Your task to perform on an android device: Open Chrome and go to settings Image 0: 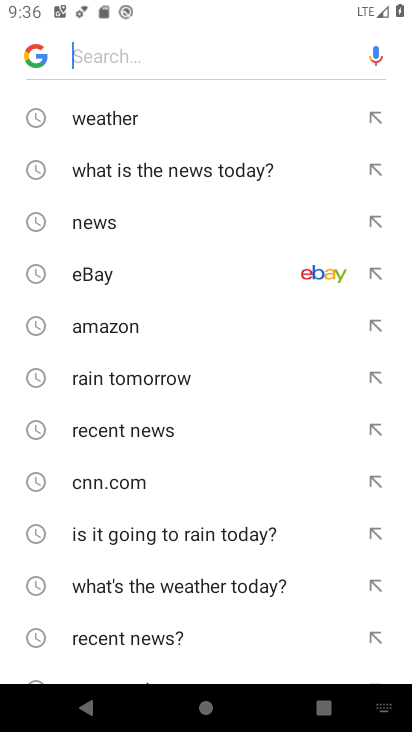
Step 0: press home button
Your task to perform on an android device: Open Chrome and go to settings Image 1: 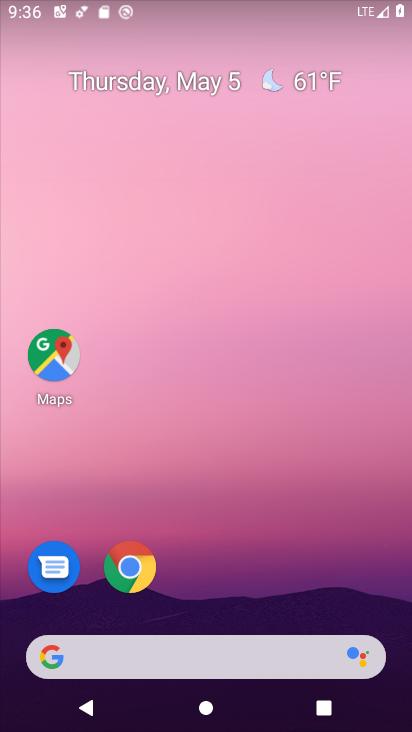
Step 1: click (118, 559)
Your task to perform on an android device: Open Chrome and go to settings Image 2: 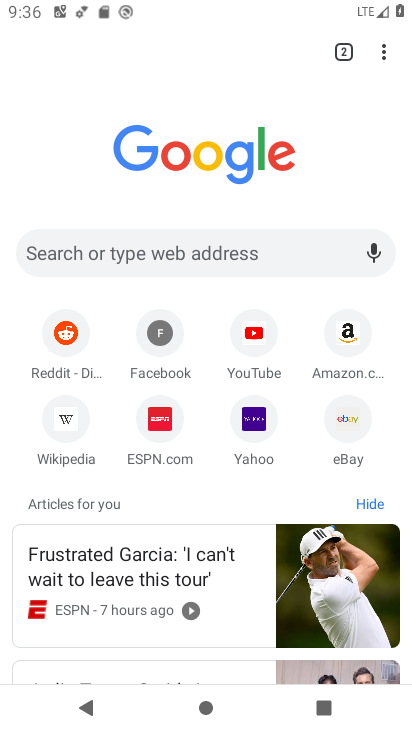
Step 2: click (390, 48)
Your task to perform on an android device: Open Chrome and go to settings Image 3: 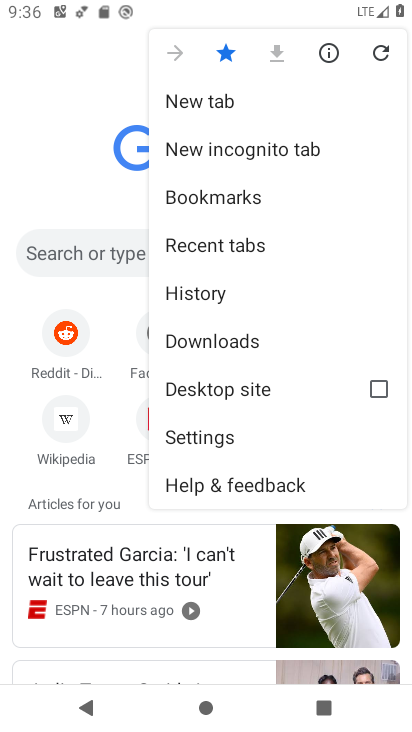
Step 3: click (226, 437)
Your task to perform on an android device: Open Chrome and go to settings Image 4: 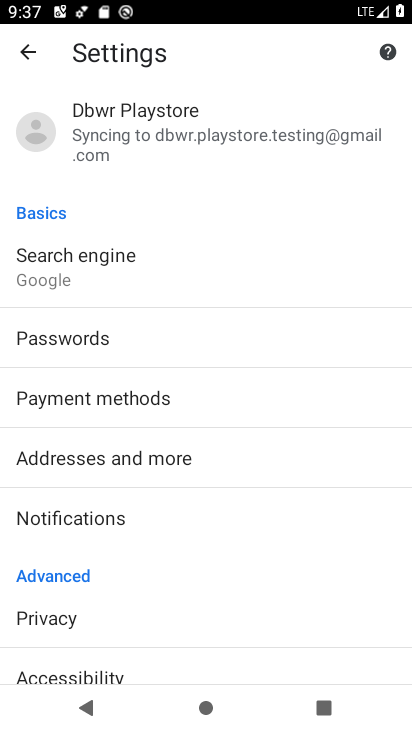
Step 4: task complete